Your task to perform on an android device: toggle javascript in the chrome app Image 0: 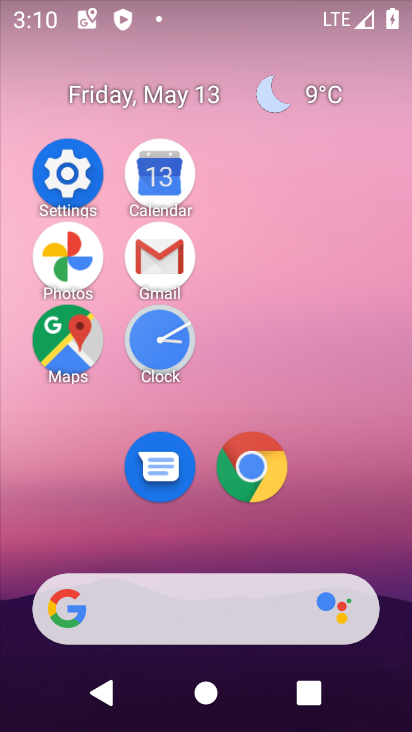
Step 0: click (254, 454)
Your task to perform on an android device: toggle javascript in the chrome app Image 1: 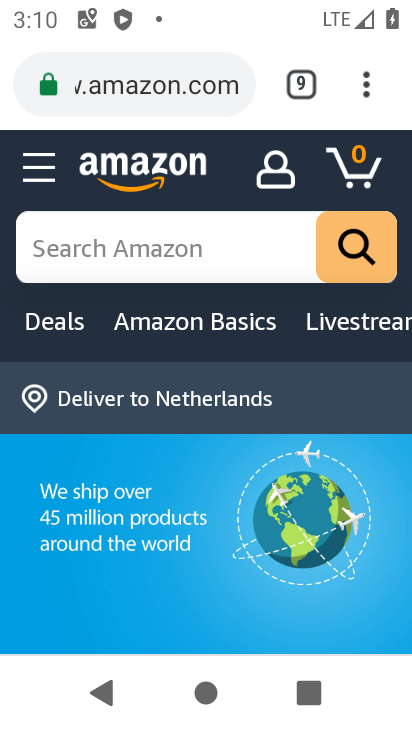
Step 1: click (385, 80)
Your task to perform on an android device: toggle javascript in the chrome app Image 2: 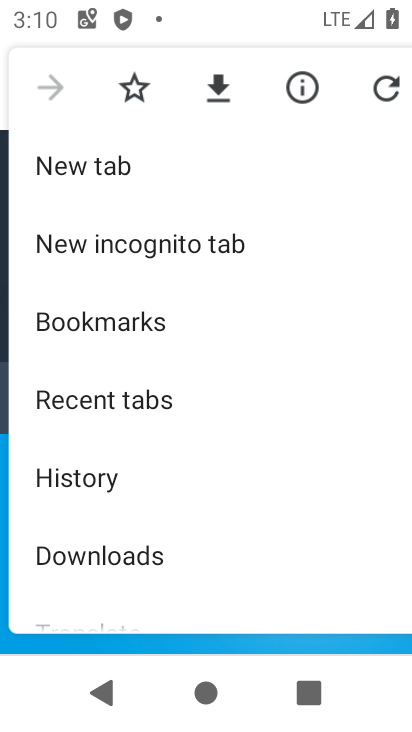
Step 2: drag from (200, 530) to (197, 150)
Your task to perform on an android device: toggle javascript in the chrome app Image 3: 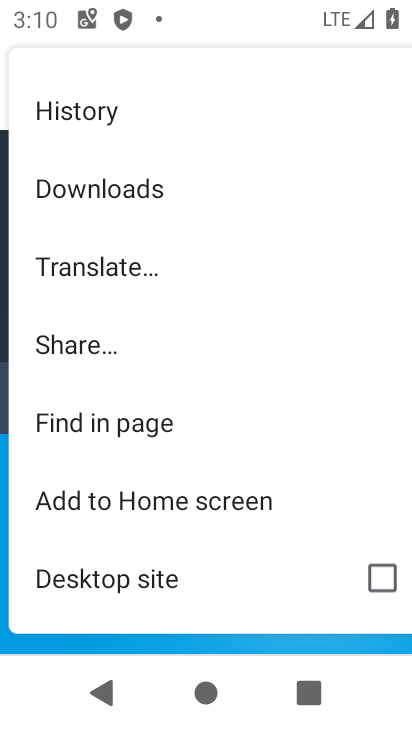
Step 3: drag from (163, 509) to (142, 144)
Your task to perform on an android device: toggle javascript in the chrome app Image 4: 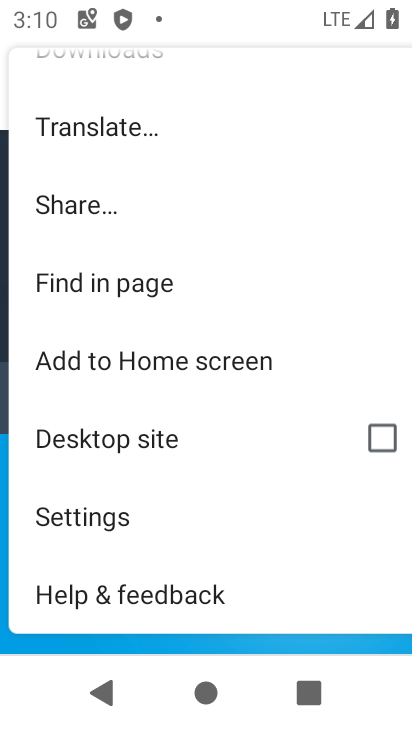
Step 4: click (128, 515)
Your task to perform on an android device: toggle javascript in the chrome app Image 5: 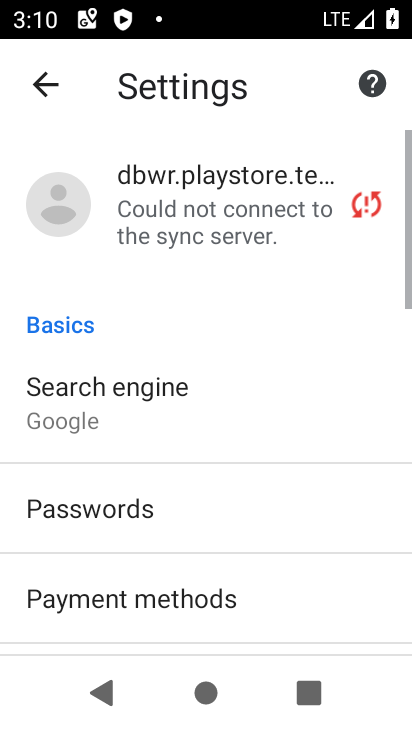
Step 5: drag from (274, 558) to (255, 166)
Your task to perform on an android device: toggle javascript in the chrome app Image 6: 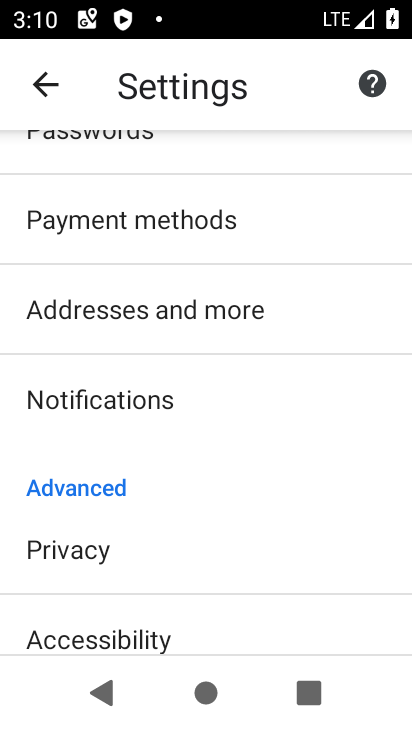
Step 6: drag from (221, 467) to (218, 153)
Your task to perform on an android device: toggle javascript in the chrome app Image 7: 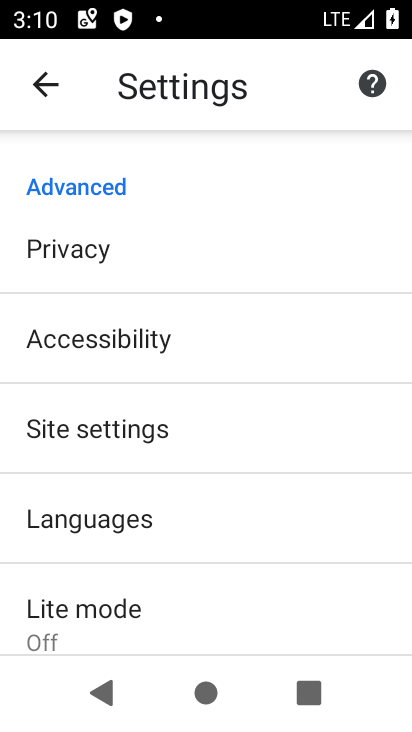
Step 7: click (199, 418)
Your task to perform on an android device: toggle javascript in the chrome app Image 8: 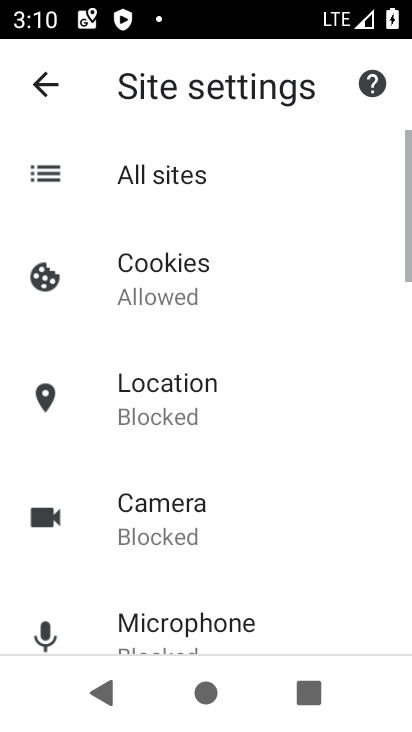
Step 8: drag from (247, 605) to (247, 213)
Your task to perform on an android device: toggle javascript in the chrome app Image 9: 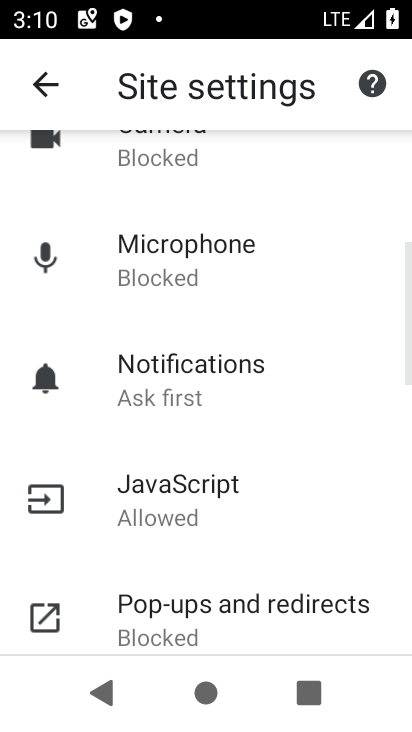
Step 9: drag from (286, 486) to (298, 110)
Your task to perform on an android device: toggle javascript in the chrome app Image 10: 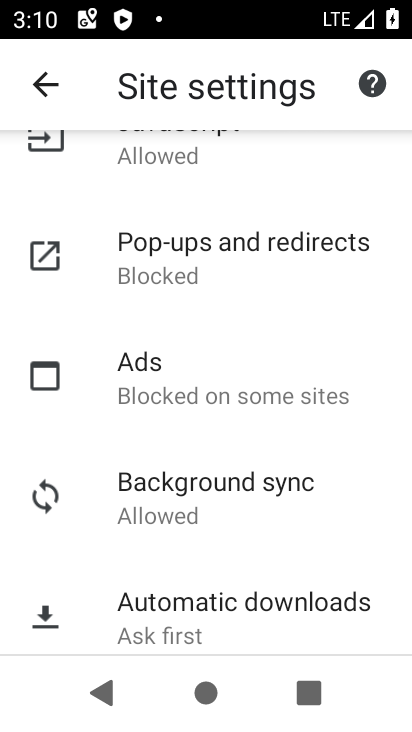
Step 10: drag from (264, 530) to (293, 229)
Your task to perform on an android device: toggle javascript in the chrome app Image 11: 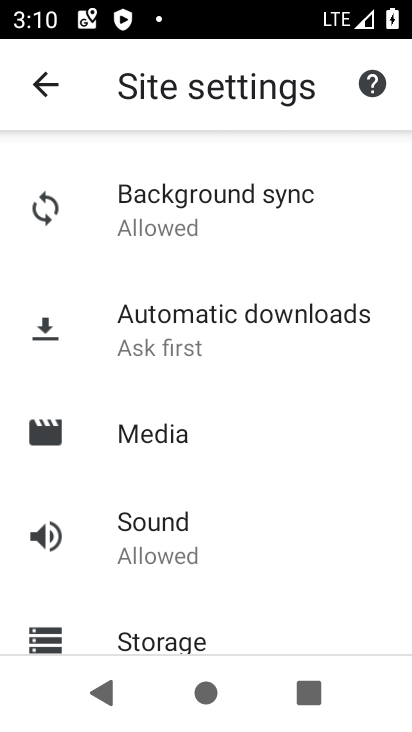
Step 11: drag from (265, 459) to (282, 160)
Your task to perform on an android device: toggle javascript in the chrome app Image 12: 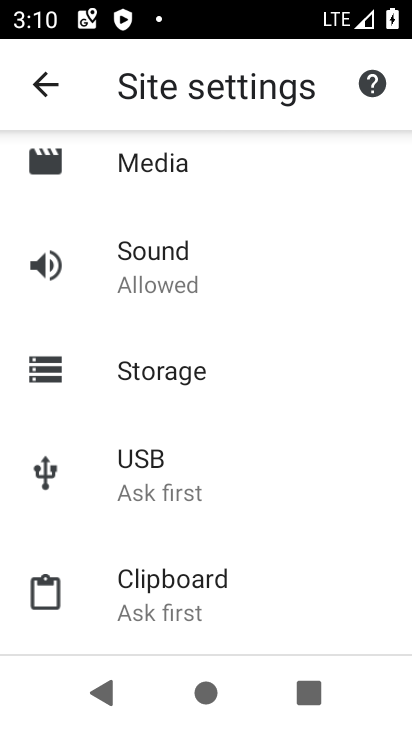
Step 12: drag from (293, 332) to (271, 606)
Your task to perform on an android device: toggle javascript in the chrome app Image 13: 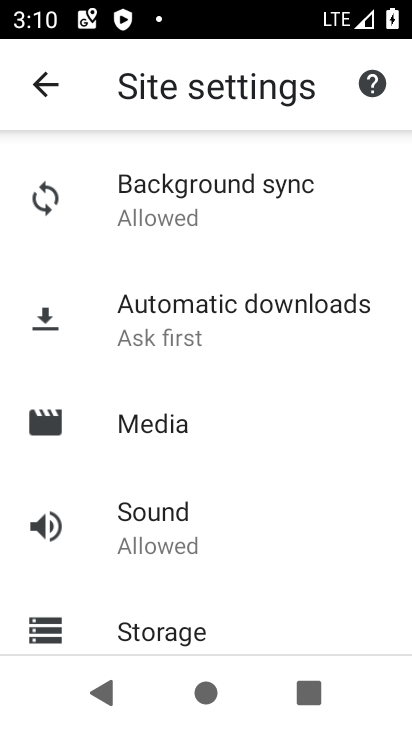
Step 13: drag from (281, 257) to (299, 603)
Your task to perform on an android device: toggle javascript in the chrome app Image 14: 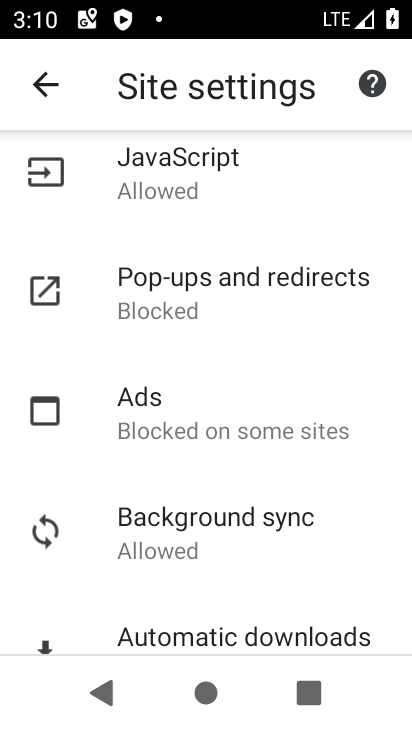
Step 14: click (226, 179)
Your task to perform on an android device: toggle javascript in the chrome app Image 15: 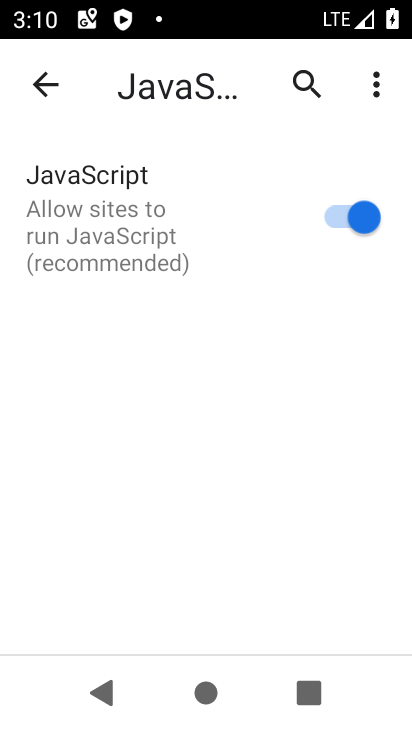
Step 15: click (357, 211)
Your task to perform on an android device: toggle javascript in the chrome app Image 16: 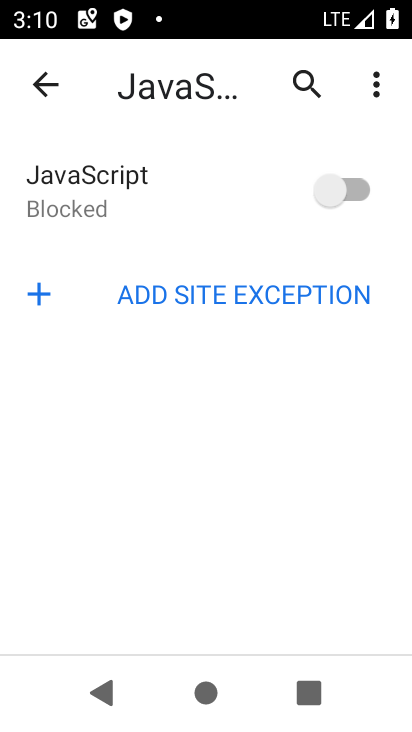
Step 16: task complete